Your task to perform on an android device: see sites visited before in the chrome app Image 0: 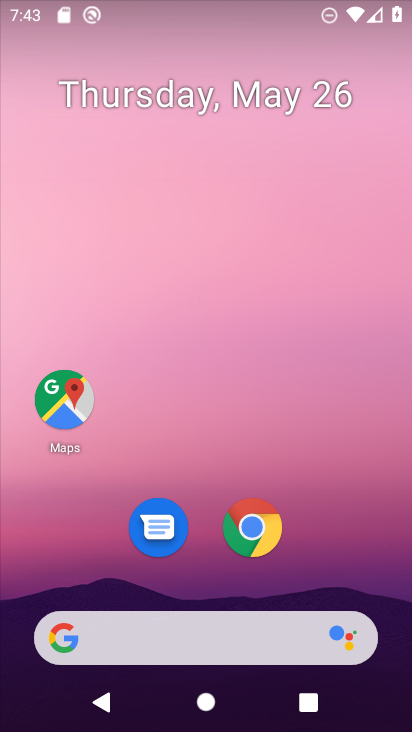
Step 0: click (256, 529)
Your task to perform on an android device: see sites visited before in the chrome app Image 1: 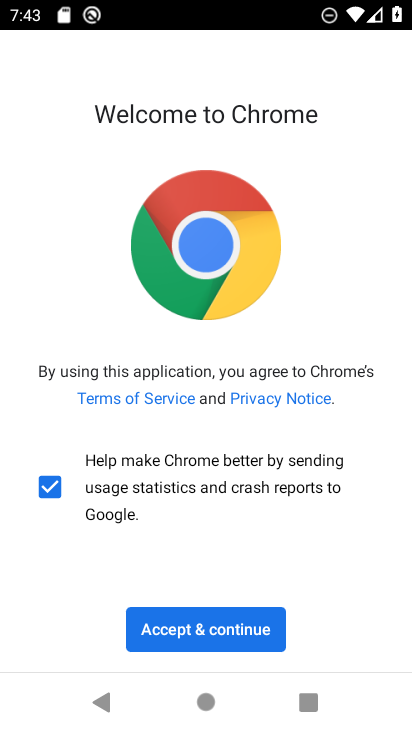
Step 1: click (218, 624)
Your task to perform on an android device: see sites visited before in the chrome app Image 2: 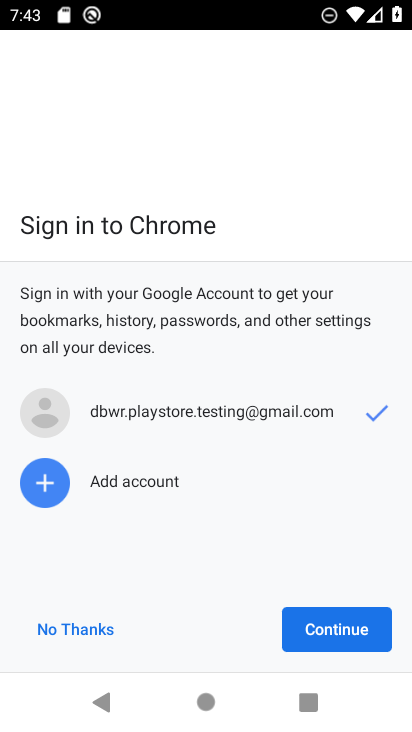
Step 2: click (57, 629)
Your task to perform on an android device: see sites visited before in the chrome app Image 3: 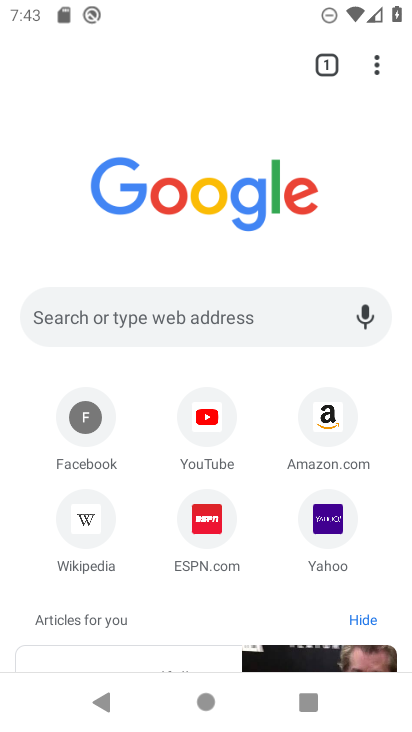
Step 3: click (376, 70)
Your task to perform on an android device: see sites visited before in the chrome app Image 4: 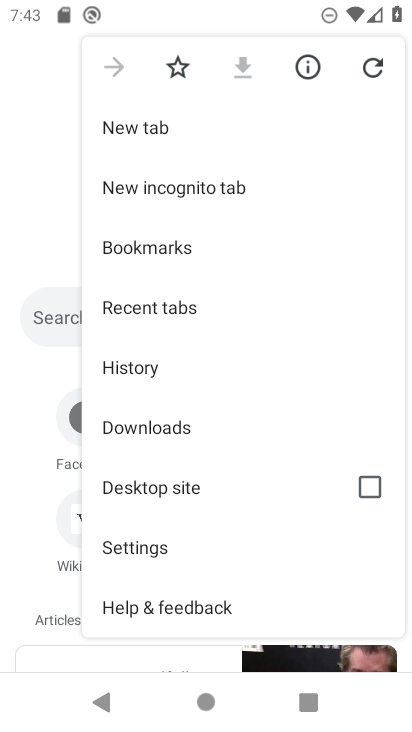
Step 4: click (152, 370)
Your task to perform on an android device: see sites visited before in the chrome app Image 5: 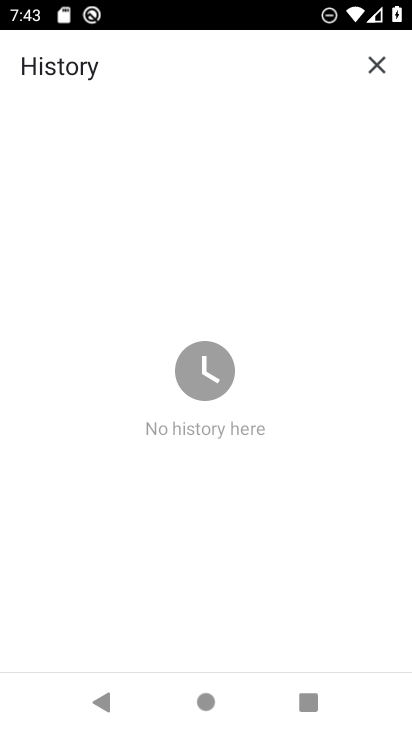
Step 5: task complete